Your task to perform on an android device: add a contact in the contacts app Image 0: 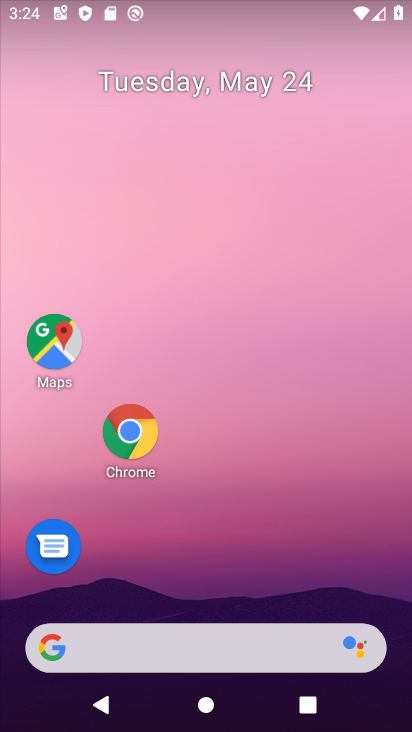
Step 0: drag from (233, 594) to (312, 79)
Your task to perform on an android device: add a contact in the contacts app Image 1: 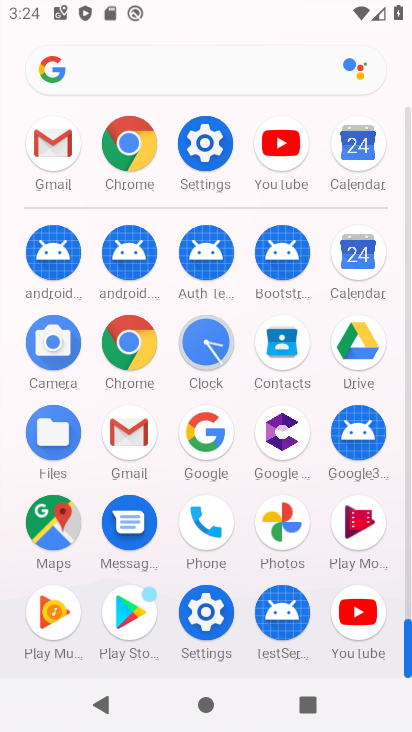
Step 1: drag from (361, 256) to (374, 174)
Your task to perform on an android device: add a contact in the contacts app Image 2: 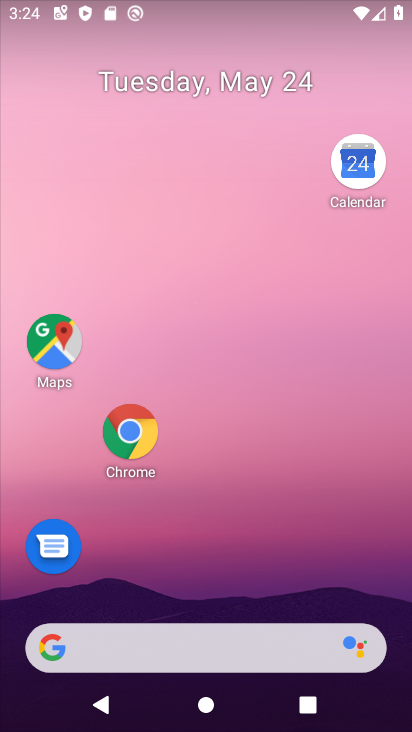
Step 2: drag from (189, 491) to (208, 227)
Your task to perform on an android device: add a contact in the contacts app Image 3: 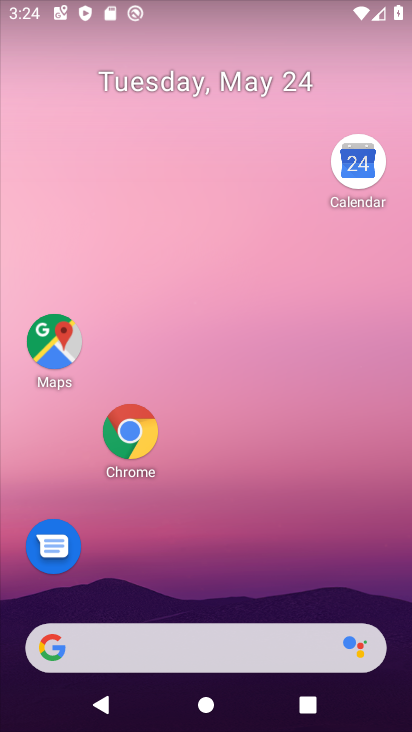
Step 3: drag from (174, 602) to (260, 77)
Your task to perform on an android device: add a contact in the contacts app Image 4: 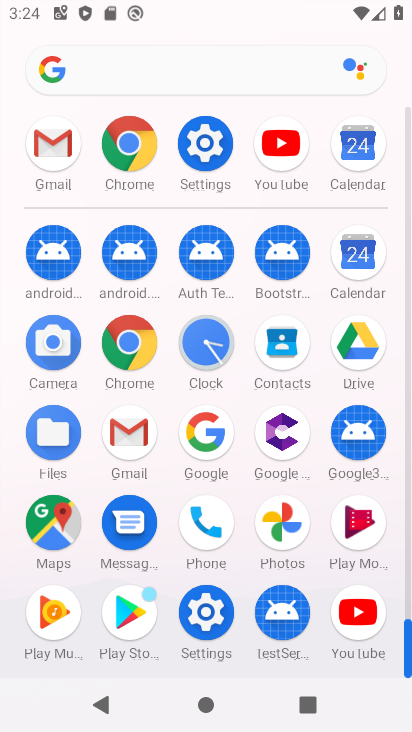
Step 4: click (289, 344)
Your task to perform on an android device: add a contact in the contacts app Image 5: 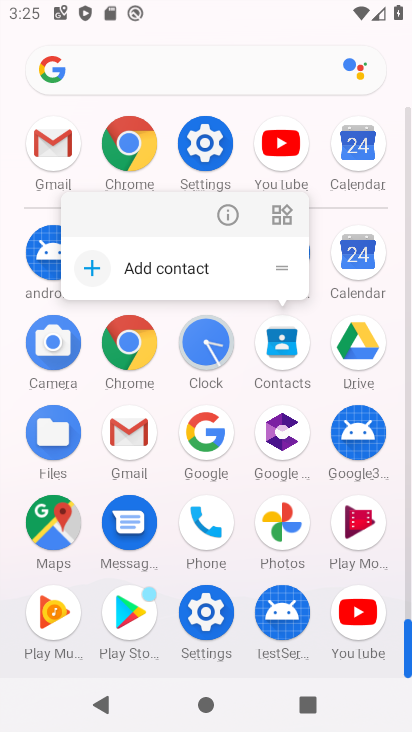
Step 5: click (227, 216)
Your task to perform on an android device: add a contact in the contacts app Image 6: 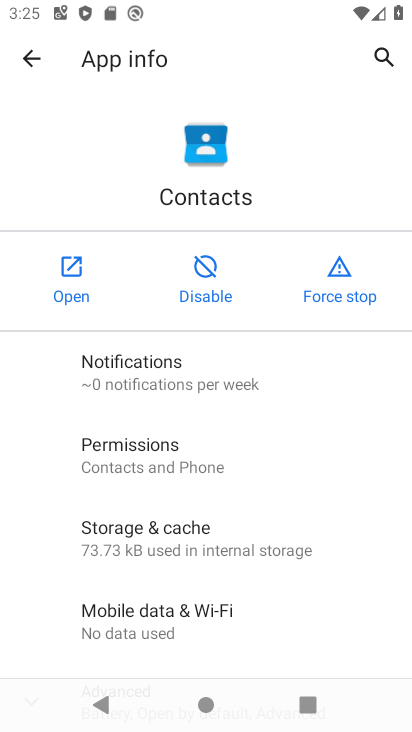
Step 6: click (88, 249)
Your task to perform on an android device: add a contact in the contacts app Image 7: 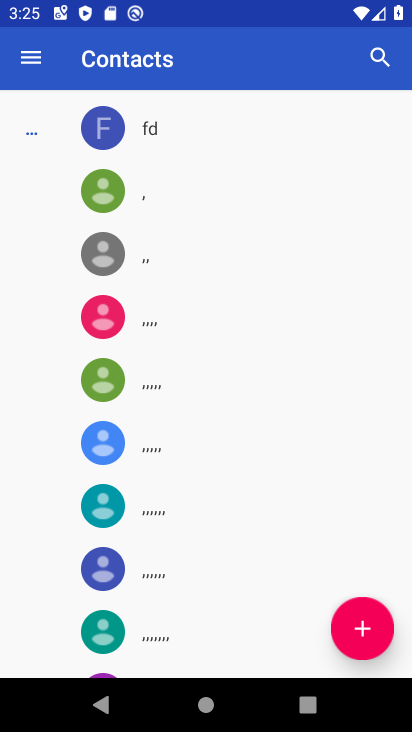
Step 7: drag from (160, 632) to (217, 180)
Your task to perform on an android device: add a contact in the contacts app Image 8: 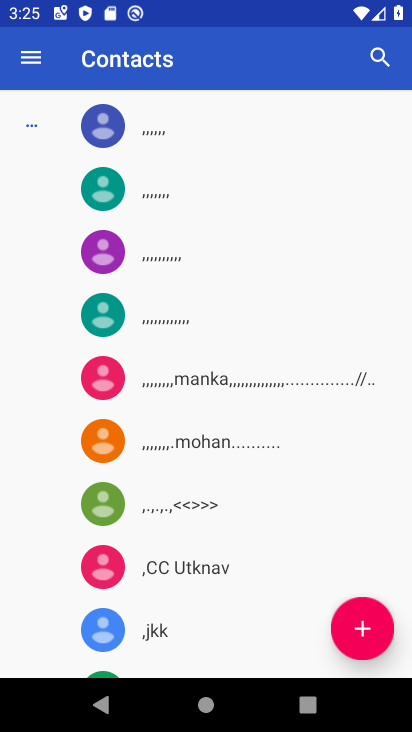
Step 8: drag from (284, 498) to (411, 80)
Your task to perform on an android device: add a contact in the contacts app Image 9: 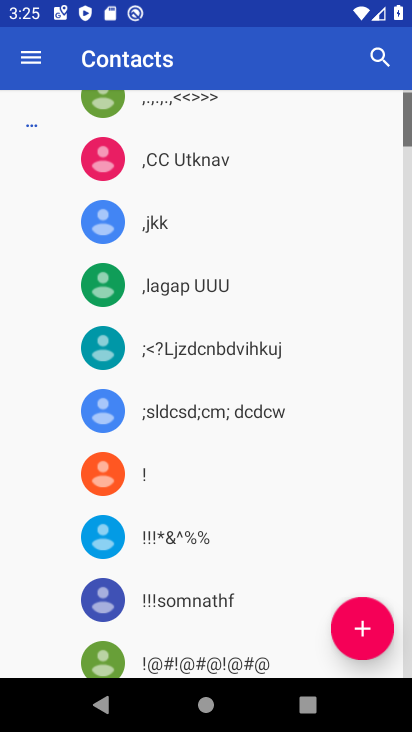
Step 9: drag from (325, 302) to (383, 731)
Your task to perform on an android device: add a contact in the contacts app Image 10: 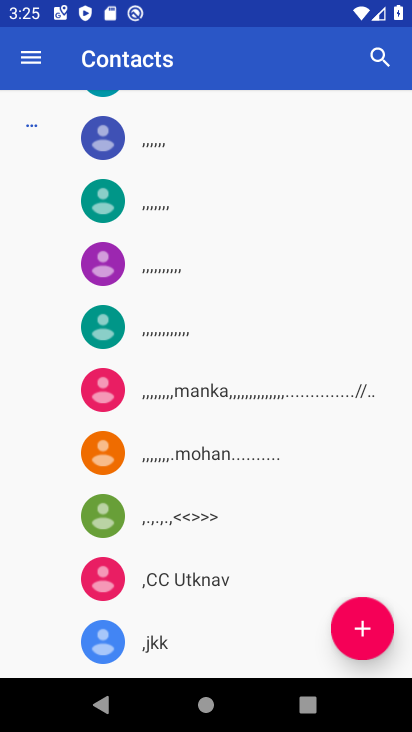
Step 10: drag from (233, 609) to (232, 206)
Your task to perform on an android device: add a contact in the contacts app Image 11: 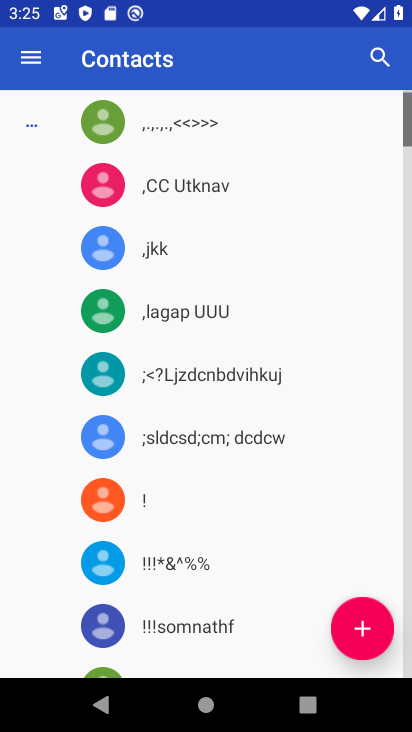
Step 11: drag from (235, 153) to (411, 667)
Your task to perform on an android device: add a contact in the contacts app Image 12: 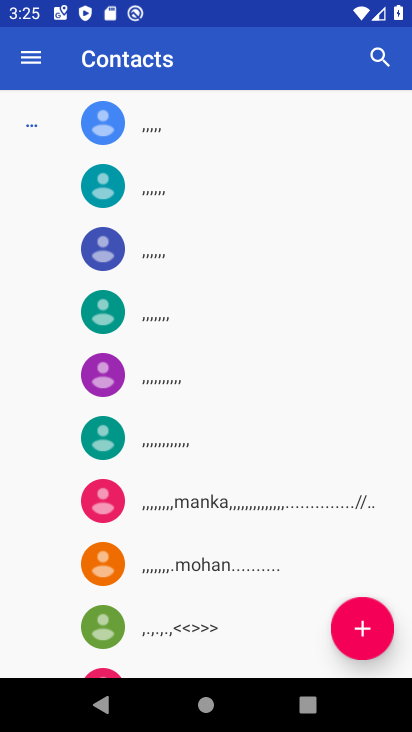
Step 12: click (360, 628)
Your task to perform on an android device: add a contact in the contacts app Image 13: 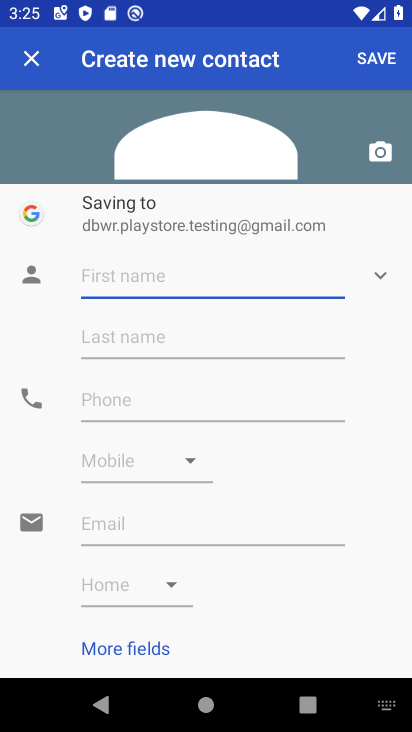
Step 13: click (97, 292)
Your task to perform on an android device: add a contact in the contacts app Image 14: 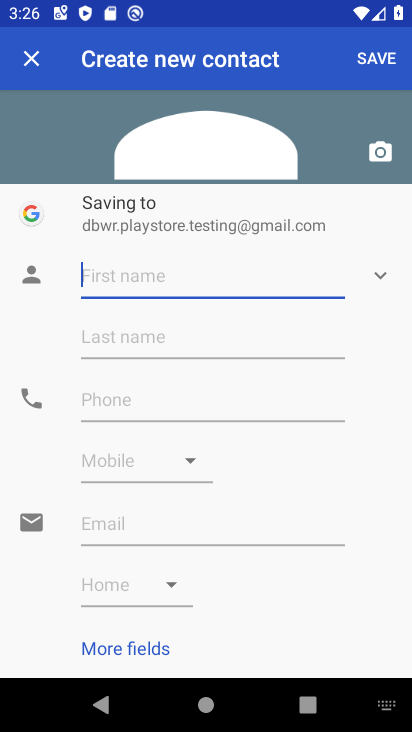
Step 14: type "ass"
Your task to perform on an android device: add a contact in the contacts app Image 15: 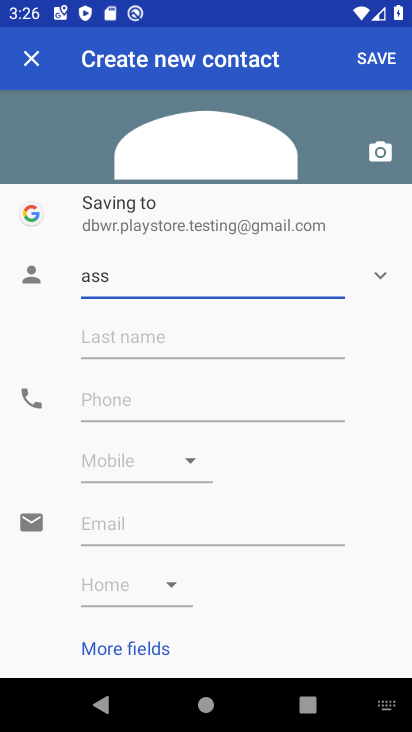
Step 15: click (357, 67)
Your task to perform on an android device: add a contact in the contacts app Image 16: 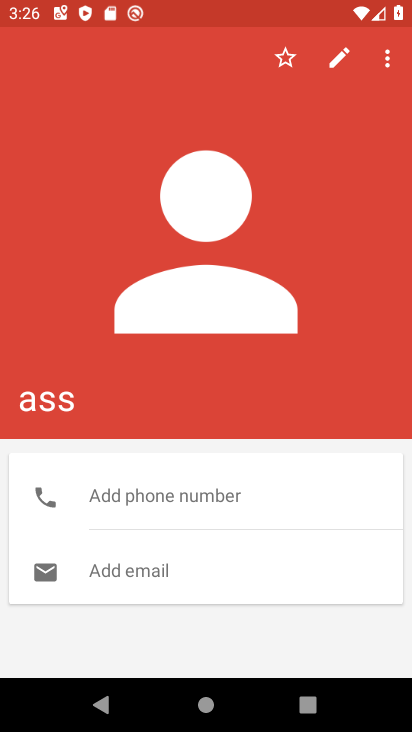
Step 16: task complete